Your task to perform on an android device: What's the weather today? Image 0: 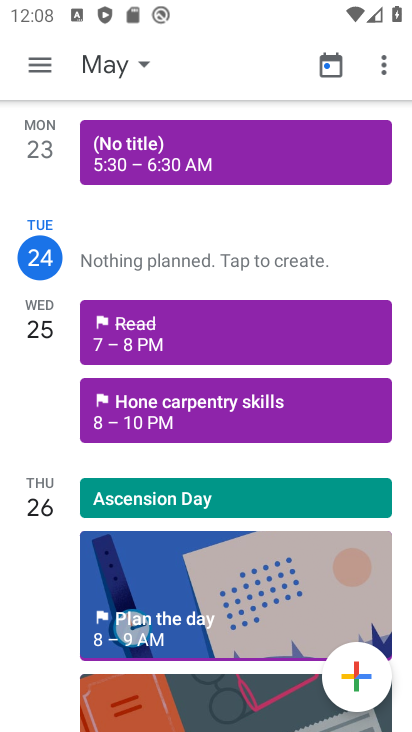
Step 0: press home button
Your task to perform on an android device: What's the weather today? Image 1: 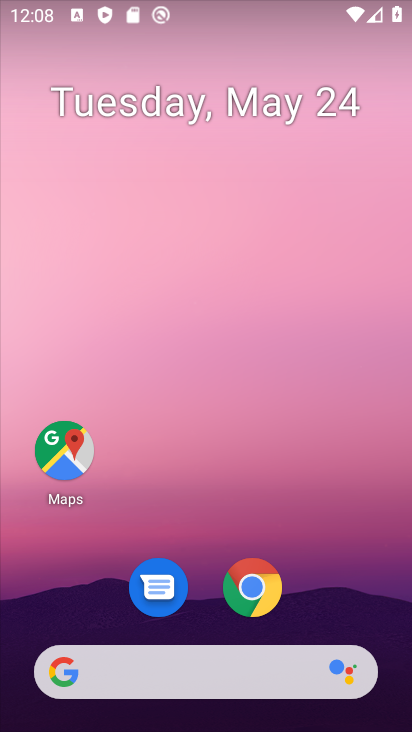
Step 1: click (276, 677)
Your task to perform on an android device: What's the weather today? Image 2: 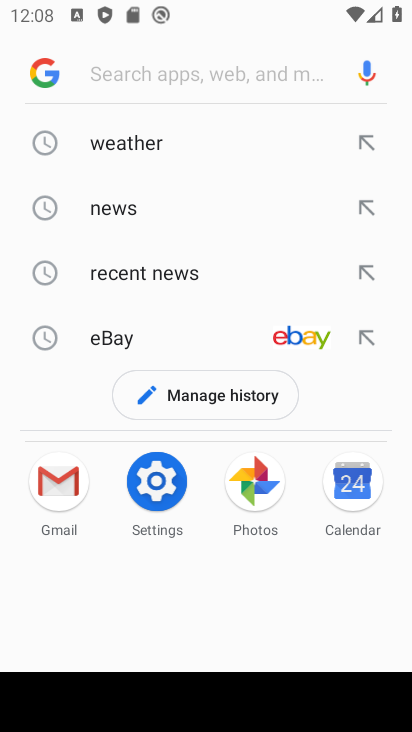
Step 2: type "What's the weather today?"
Your task to perform on an android device: What's the weather today? Image 3: 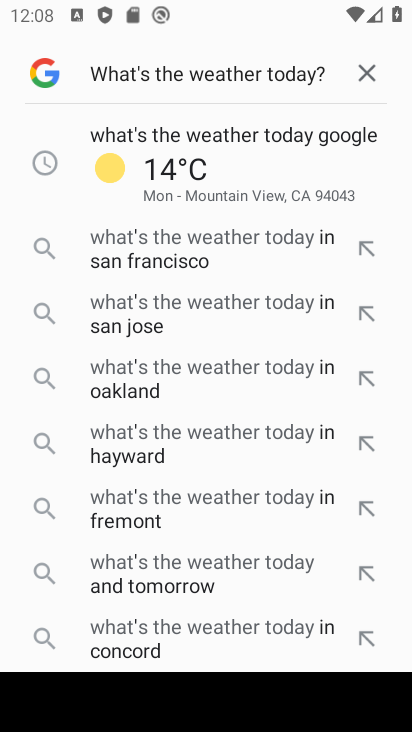
Step 3: click (318, 155)
Your task to perform on an android device: What's the weather today? Image 4: 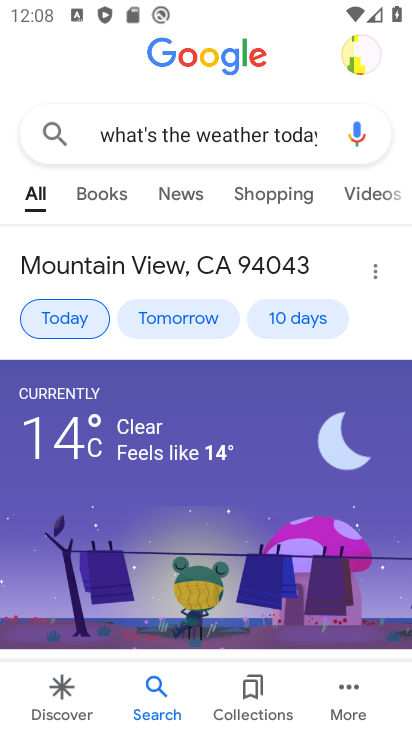
Step 4: task complete